Your task to perform on an android device: open chrome privacy settings Image 0: 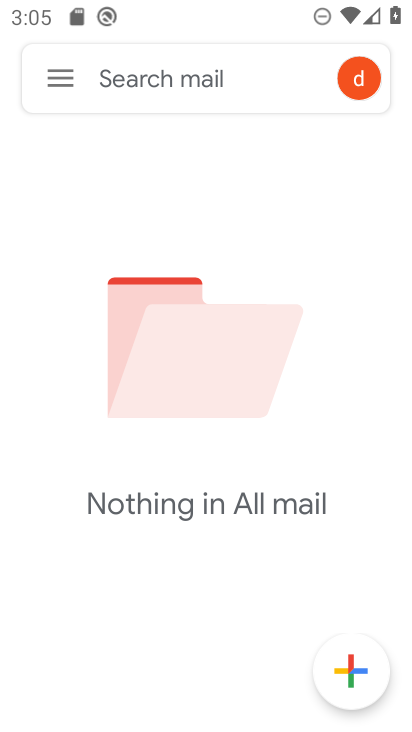
Step 0: press home button
Your task to perform on an android device: open chrome privacy settings Image 1: 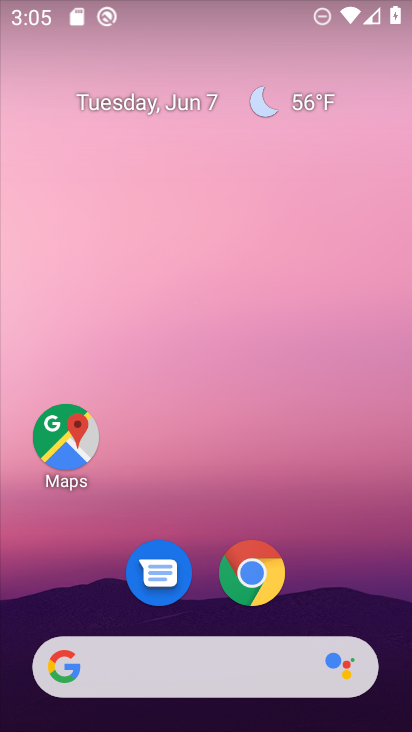
Step 1: click (248, 563)
Your task to perform on an android device: open chrome privacy settings Image 2: 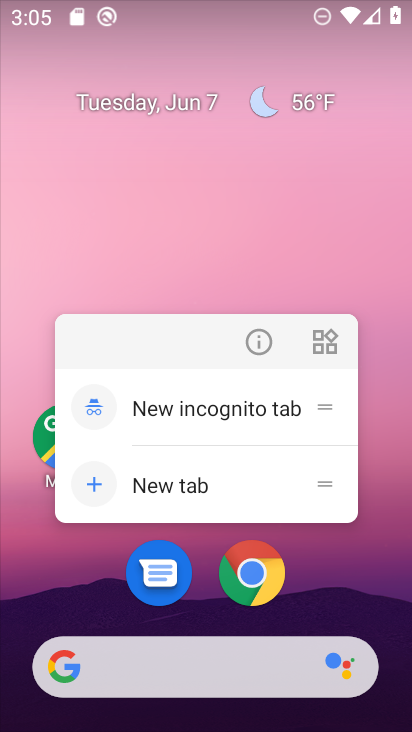
Step 2: click (249, 563)
Your task to perform on an android device: open chrome privacy settings Image 3: 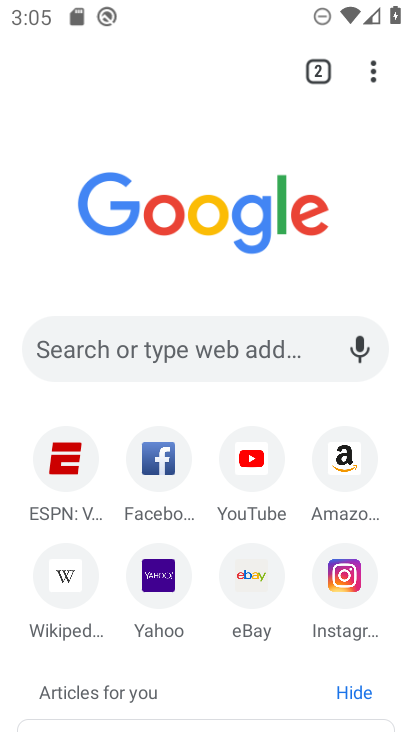
Step 3: click (392, 75)
Your task to perform on an android device: open chrome privacy settings Image 4: 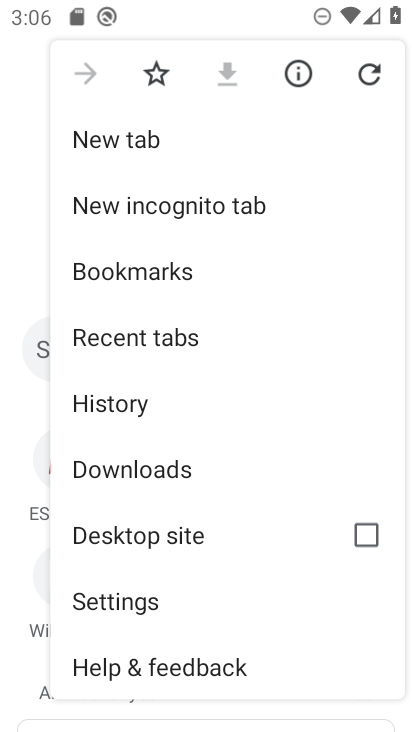
Step 4: click (183, 587)
Your task to perform on an android device: open chrome privacy settings Image 5: 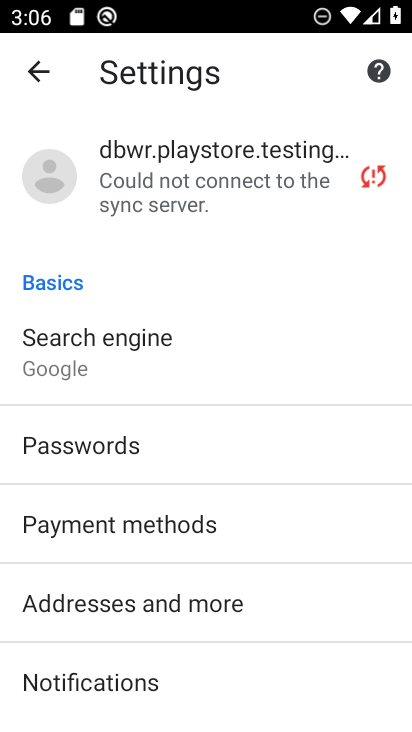
Step 5: drag from (92, 668) to (143, 310)
Your task to perform on an android device: open chrome privacy settings Image 6: 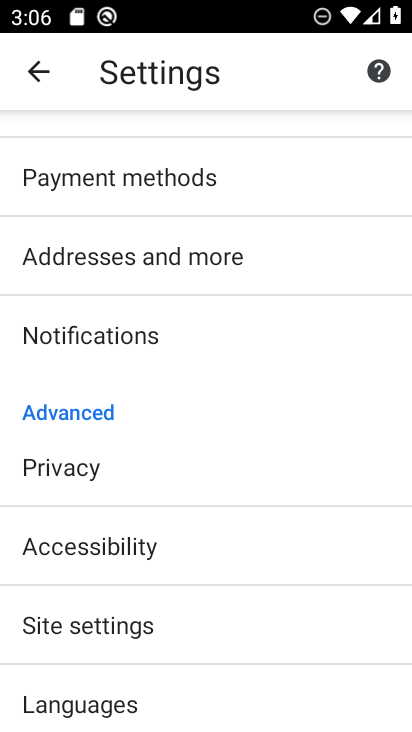
Step 6: click (212, 477)
Your task to perform on an android device: open chrome privacy settings Image 7: 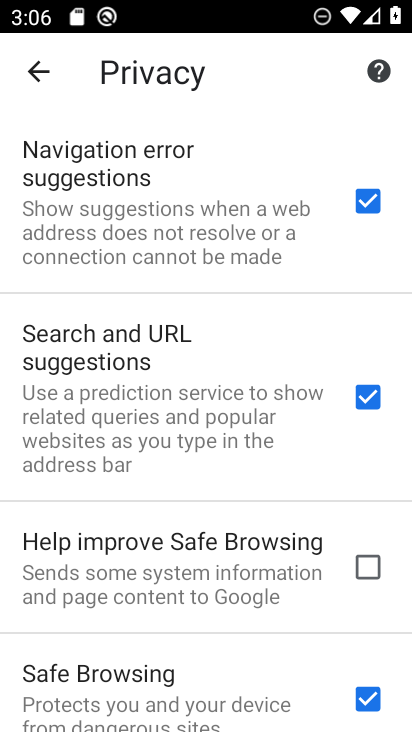
Step 7: task complete